Your task to perform on an android device: Open the map Image 0: 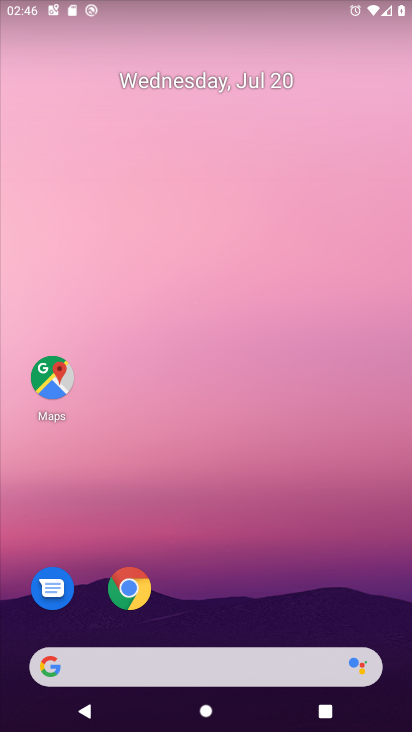
Step 0: drag from (269, 615) to (202, 183)
Your task to perform on an android device: Open the map Image 1: 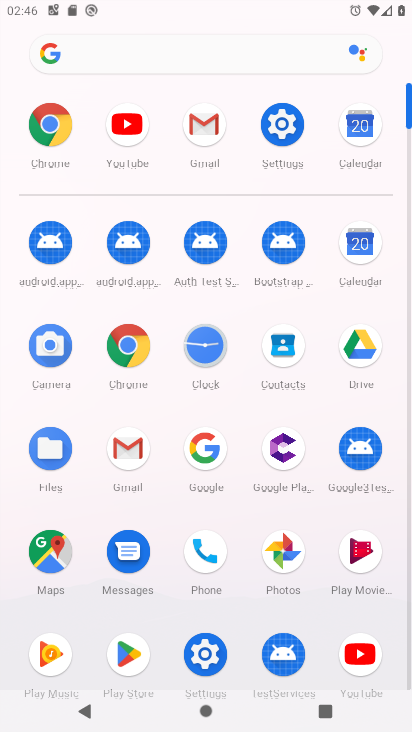
Step 1: click (82, 551)
Your task to perform on an android device: Open the map Image 2: 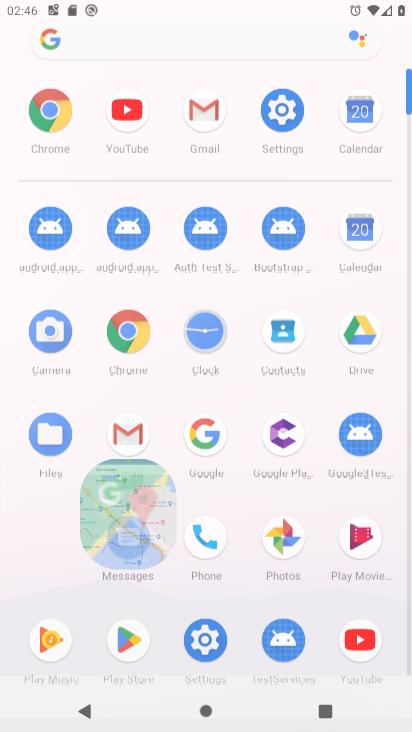
Step 2: click (74, 551)
Your task to perform on an android device: Open the map Image 3: 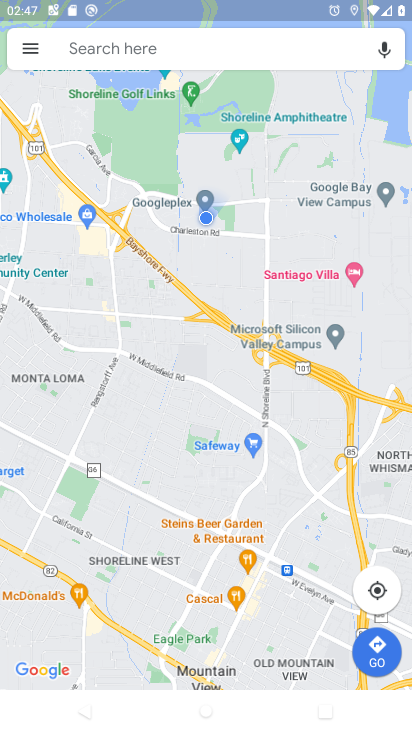
Step 3: task complete